Your task to perform on an android device: toggle show notifications on the lock screen Image 0: 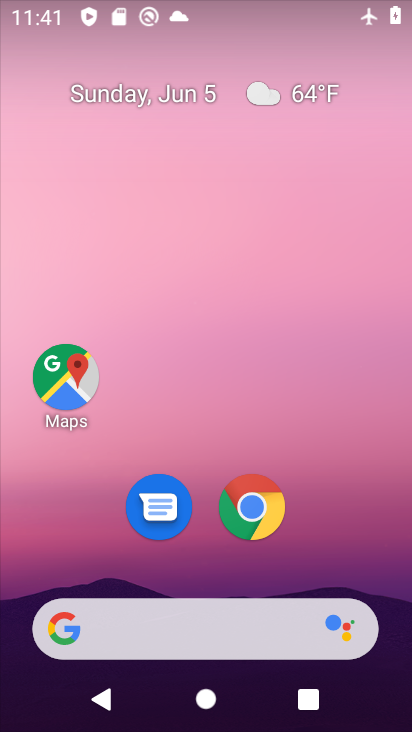
Step 0: drag from (311, 544) to (320, 77)
Your task to perform on an android device: toggle show notifications on the lock screen Image 1: 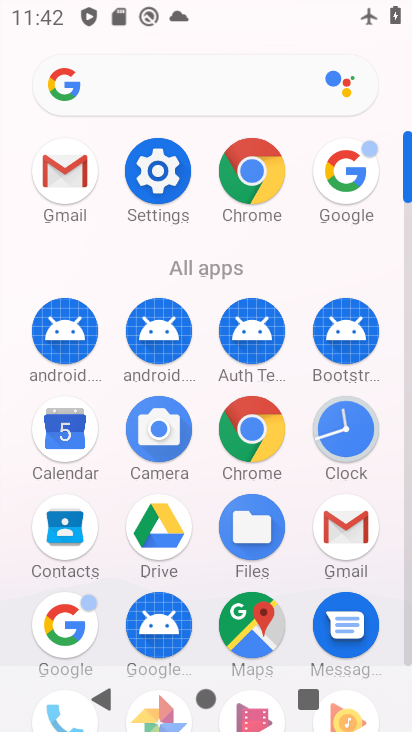
Step 1: click (146, 161)
Your task to perform on an android device: toggle show notifications on the lock screen Image 2: 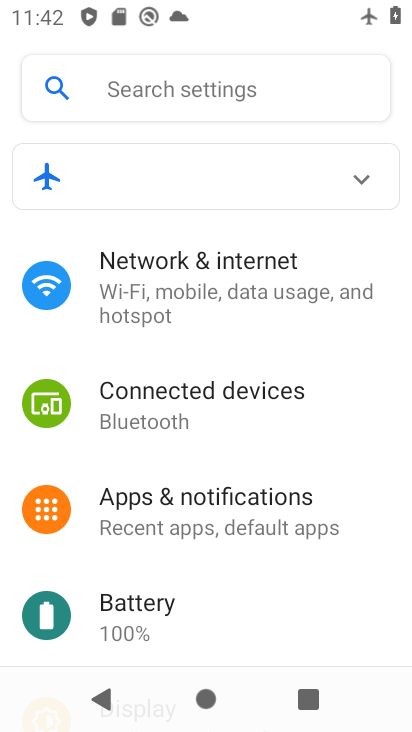
Step 2: click (199, 532)
Your task to perform on an android device: toggle show notifications on the lock screen Image 3: 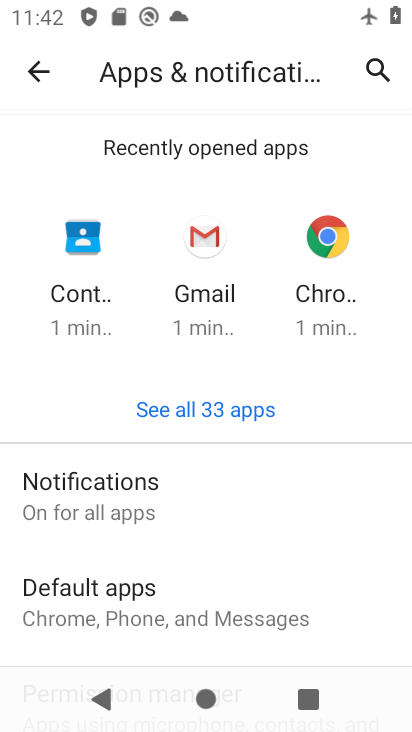
Step 3: click (118, 505)
Your task to perform on an android device: toggle show notifications on the lock screen Image 4: 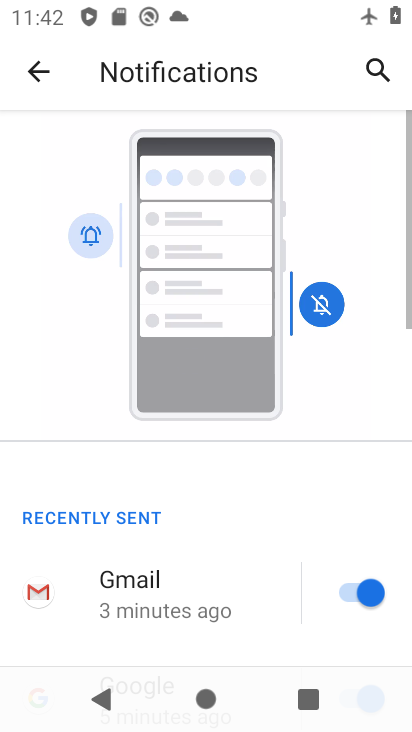
Step 4: drag from (214, 562) to (236, 90)
Your task to perform on an android device: toggle show notifications on the lock screen Image 5: 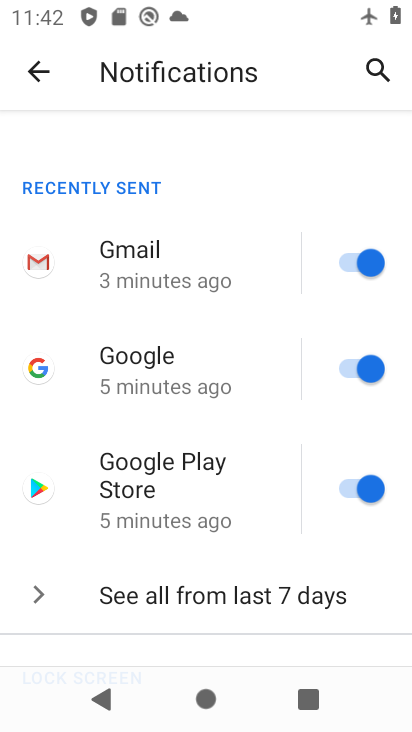
Step 5: drag from (199, 515) to (275, 32)
Your task to perform on an android device: toggle show notifications on the lock screen Image 6: 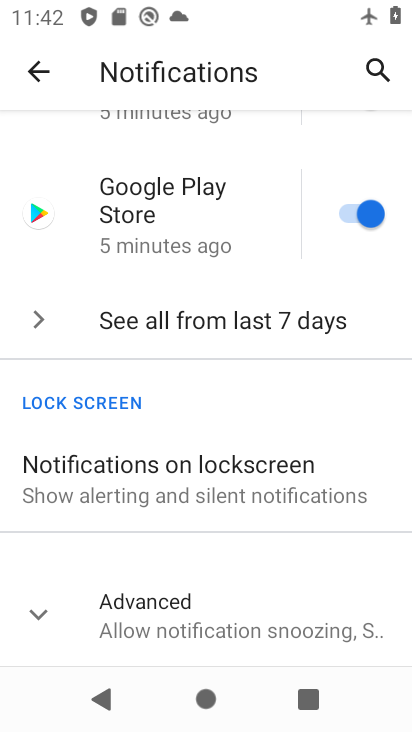
Step 6: click (213, 489)
Your task to perform on an android device: toggle show notifications on the lock screen Image 7: 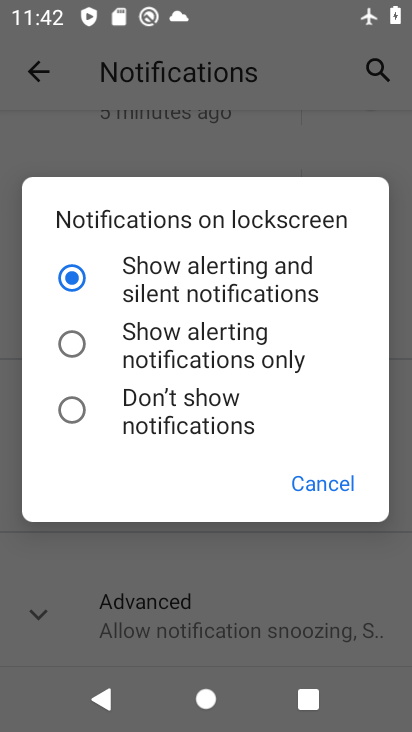
Step 7: click (200, 345)
Your task to perform on an android device: toggle show notifications on the lock screen Image 8: 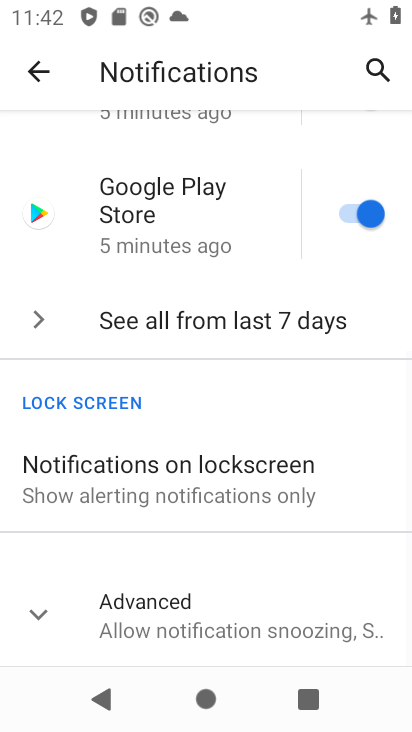
Step 8: task complete